Your task to perform on an android device: read, delete, or share a saved page in the chrome app Image 0: 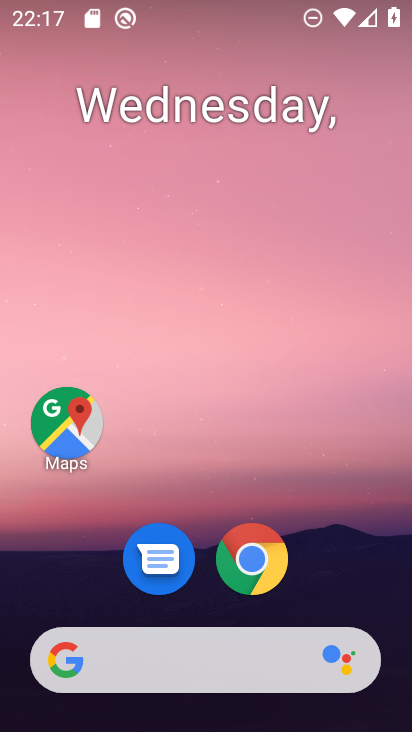
Step 0: drag from (370, 588) to (372, 218)
Your task to perform on an android device: read, delete, or share a saved page in the chrome app Image 1: 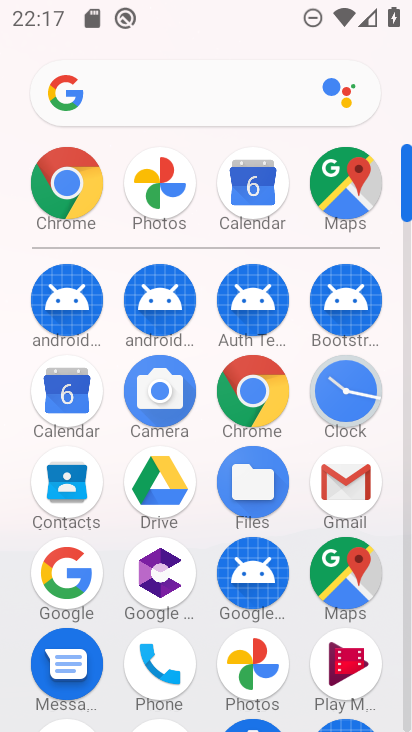
Step 1: click (283, 397)
Your task to perform on an android device: read, delete, or share a saved page in the chrome app Image 2: 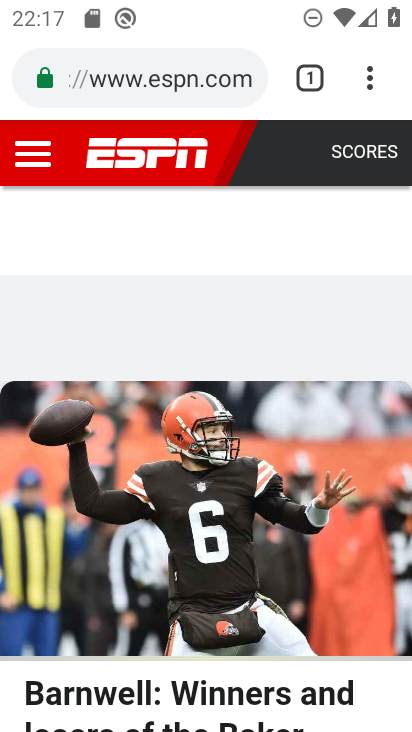
Step 2: click (372, 89)
Your task to perform on an android device: read, delete, or share a saved page in the chrome app Image 3: 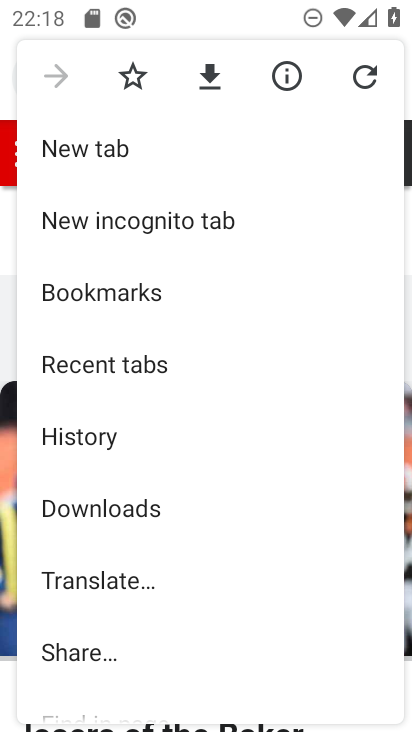
Step 3: drag from (287, 413) to (309, 257)
Your task to perform on an android device: read, delete, or share a saved page in the chrome app Image 4: 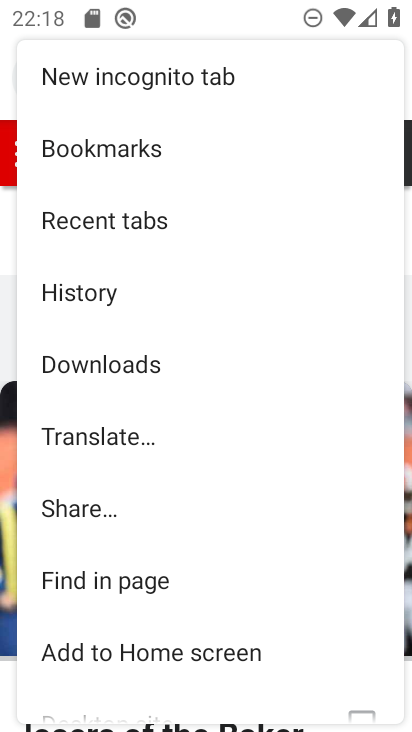
Step 4: drag from (310, 421) to (341, 260)
Your task to perform on an android device: read, delete, or share a saved page in the chrome app Image 5: 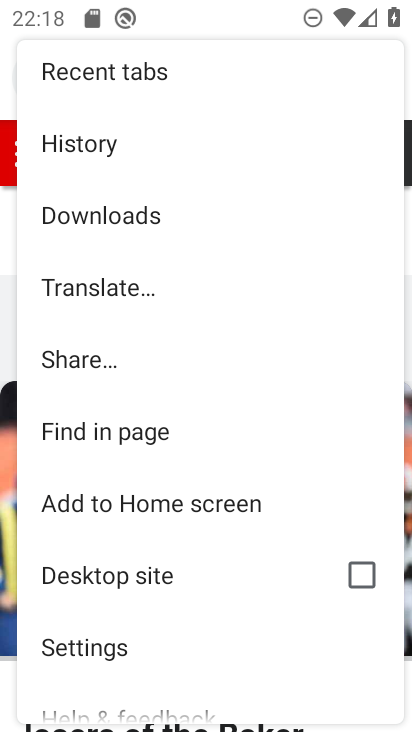
Step 5: click (173, 219)
Your task to perform on an android device: read, delete, or share a saved page in the chrome app Image 6: 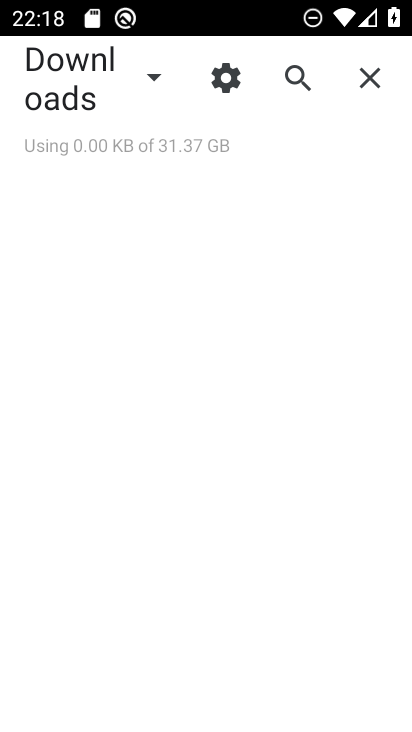
Step 6: click (155, 80)
Your task to perform on an android device: read, delete, or share a saved page in the chrome app Image 7: 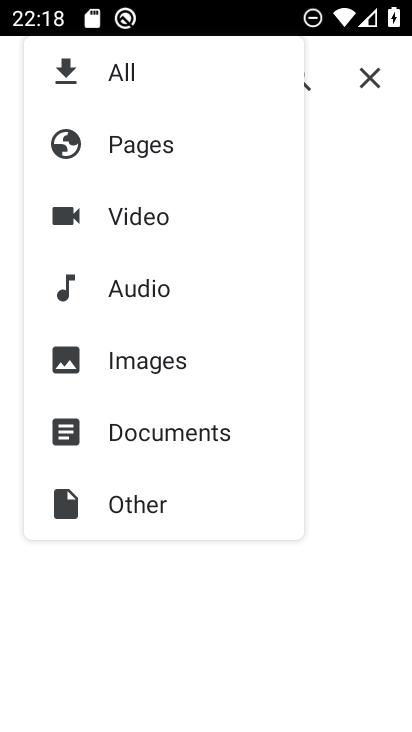
Step 7: click (140, 149)
Your task to perform on an android device: read, delete, or share a saved page in the chrome app Image 8: 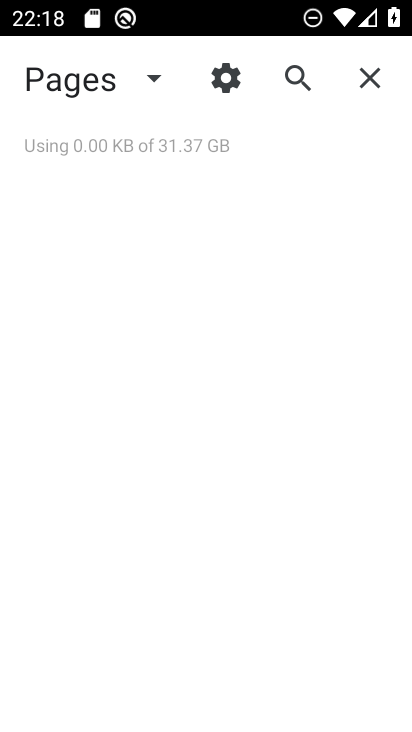
Step 8: task complete